Your task to perform on an android device: Open Yahoo.com Image 0: 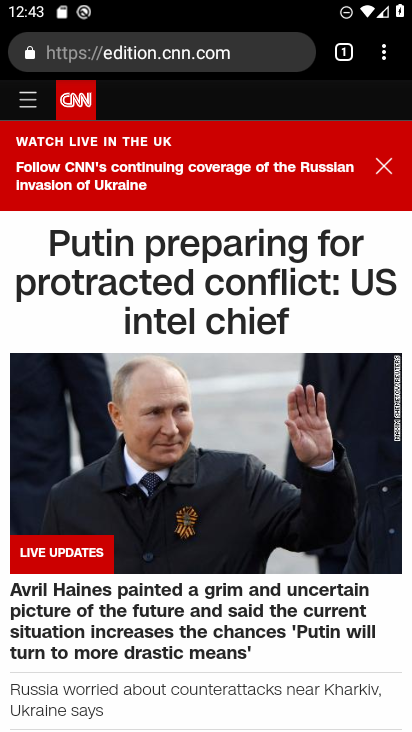
Step 0: press home button
Your task to perform on an android device: Open Yahoo.com Image 1: 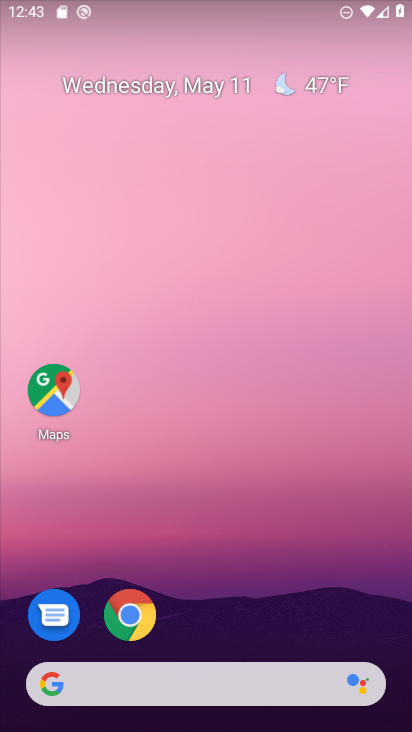
Step 1: drag from (246, 613) to (189, 191)
Your task to perform on an android device: Open Yahoo.com Image 2: 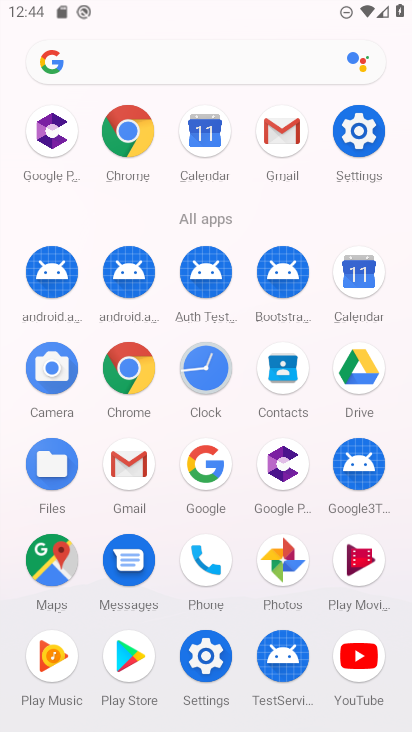
Step 2: click (116, 131)
Your task to perform on an android device: Open Yahoo.com Image 3: 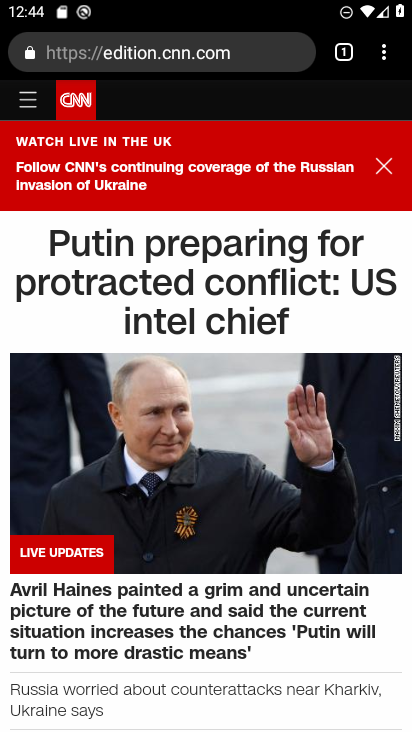
Step 3: click (195, 31)
Your task to perform on an android device: Open Yahoo.com Image 4: 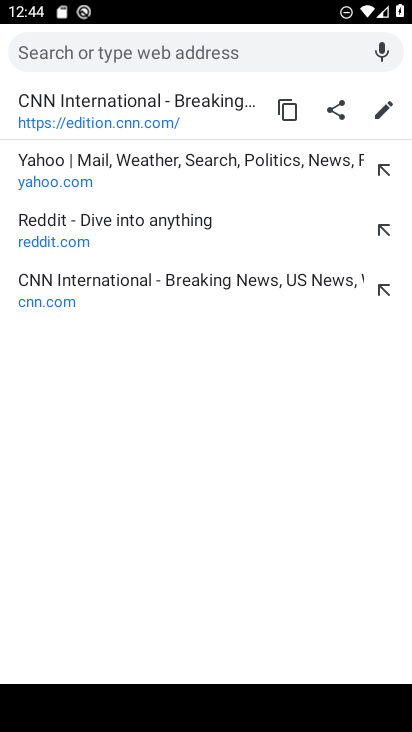
Step 4: type "yahoo.com"
Your task to perform on an android device: Open Yahoo.com Image 5: 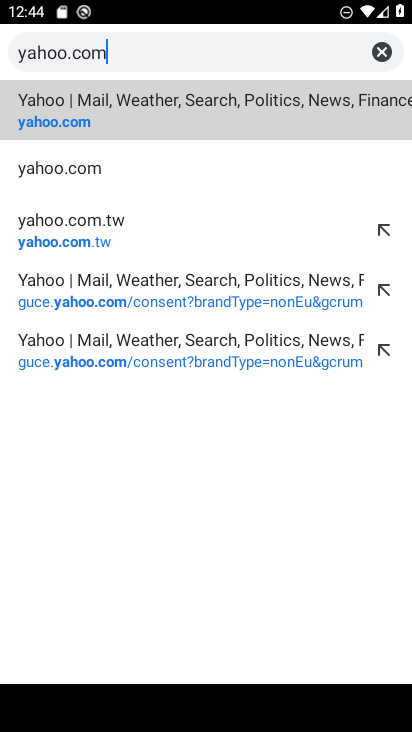
Step 5: click (60, 168)
Your task to perform on an android device: Open Yahoo.com Image 6: 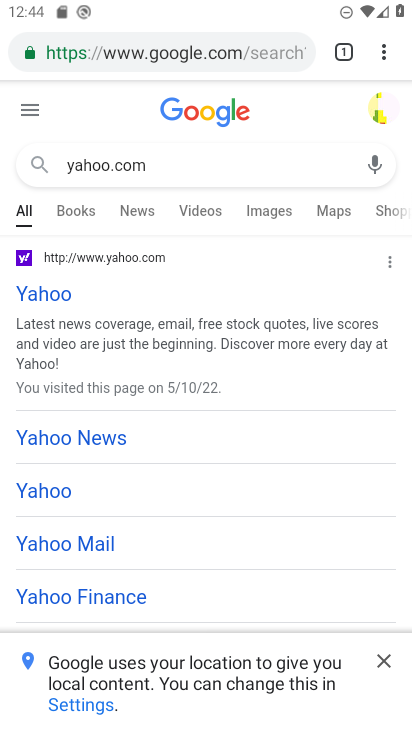
Step 6: click (82, 299)
Your task to perform on an android device: Open Yahoo.com Image 7: 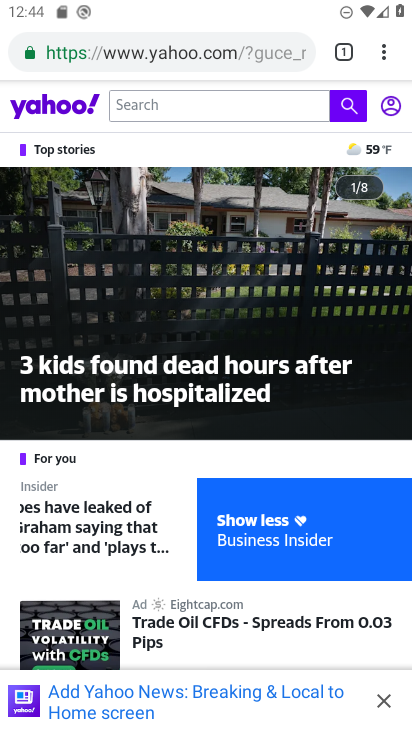
Step 7: task complete